Your task to perform on an android device: turn off location history Image 0: 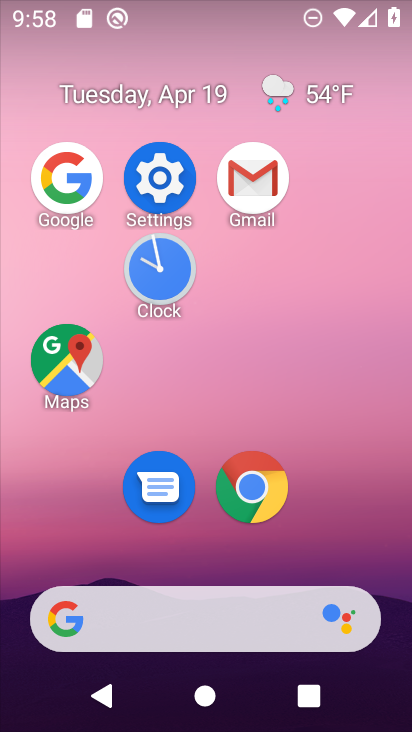
Step 0: click (138, 179)
Your task to perform on an android device: turn off location history Image 1: 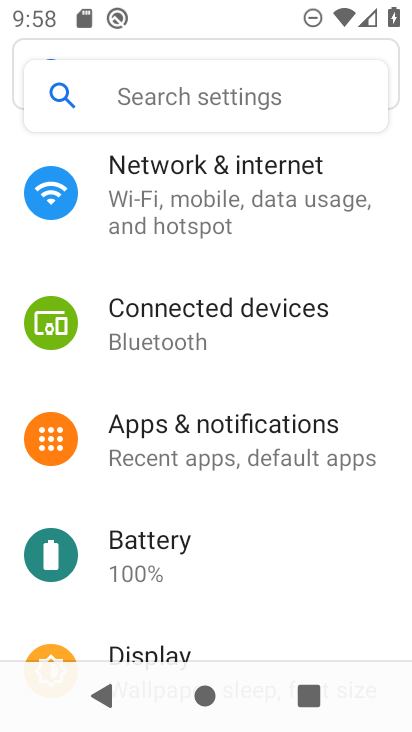
Step 1: drag from (205, 553) to (239, 202)
Your task to perform on an android device: turn off location history Image 2: 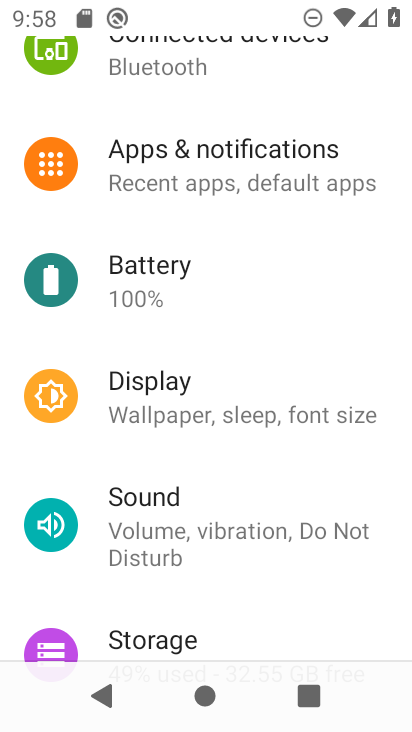
Step 2: drag from (255, 533) to (306, 261)
Your task to perform on an android device: turn off location history Image 3: 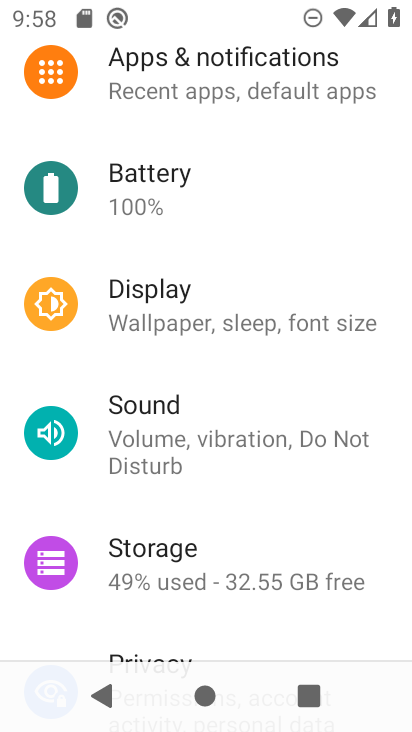
Step 3: drag from (270, 533) to (312, 178)
Your task to perform on an android device: turn off location history Image 4: 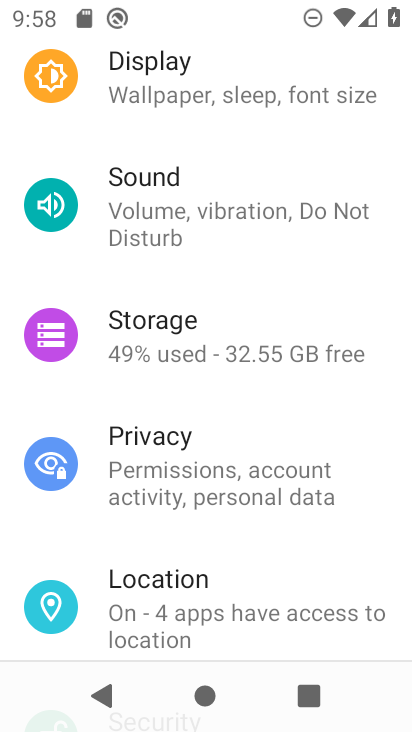
Step 4: click (222, 606)
Your task to perform on an android device: turn off location history Image 5: 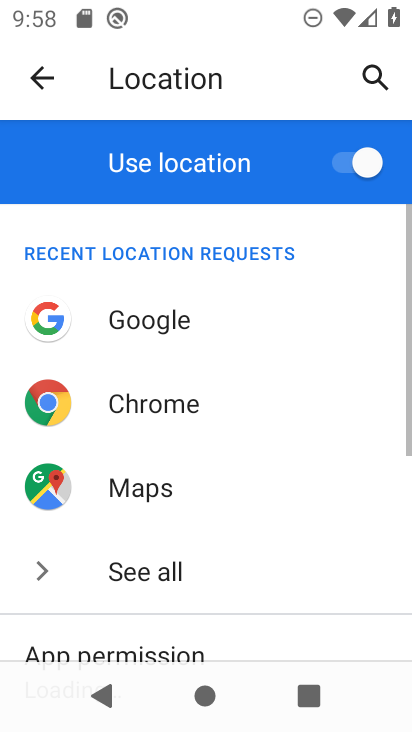
Step 5: drag from (291, 557) to (263, 128)
Your task to perform on an android device: turn off location history Image 6: 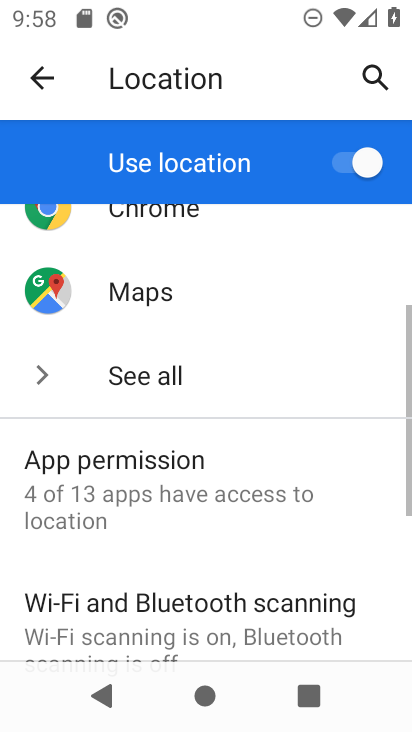
Step 6: drag from (327, 578) to (363, 162)
Your task to perform on an android device: turn off location history Image 7: 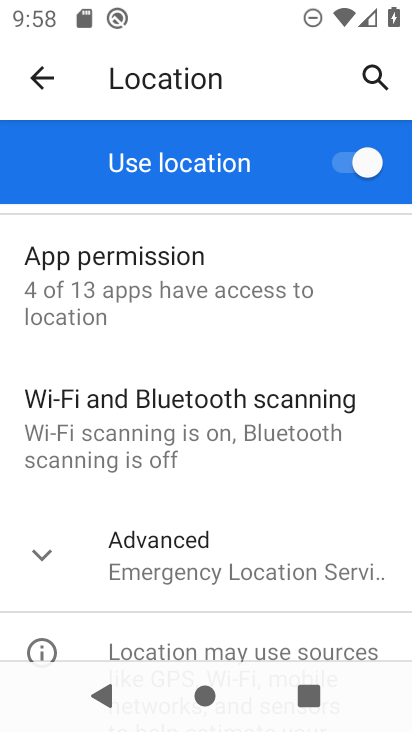
Step 7: click (310, 548)
Your task to perform on an android device: turn off location history Image 8: 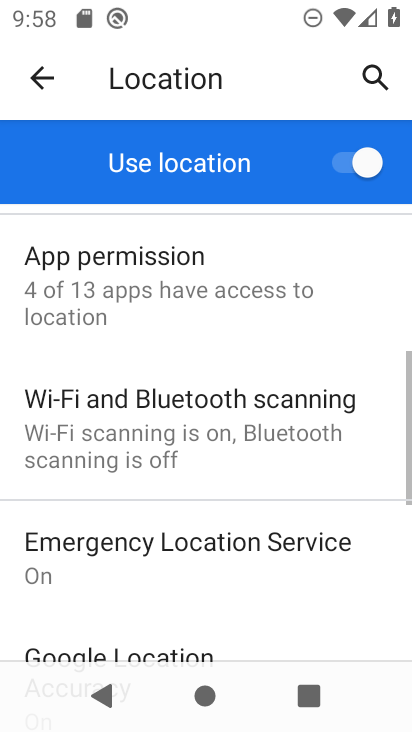
Step 8: drag from (281, 576) to (274, 181)
Your task to perform on an android device: turn off location history Image 9: 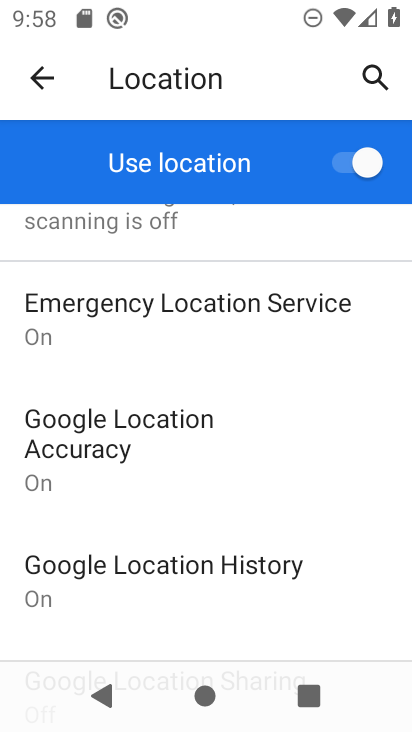
Step 9: click (201, 563)
Your task to perform on an android device: turn off location history Image 10: 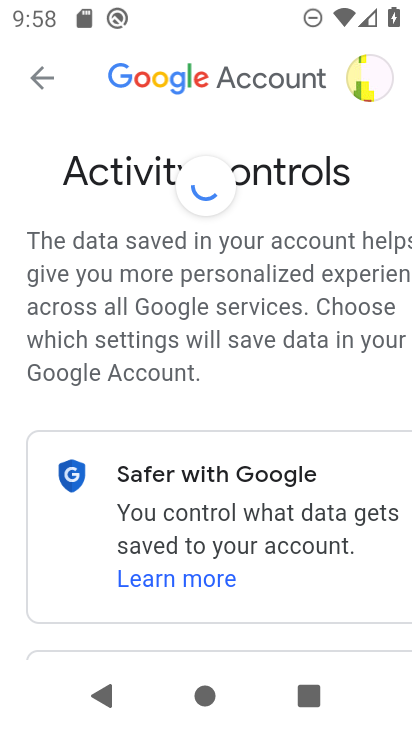
Step 10: task complete